Your task to perform on an android device: change your default location settings in chrome Image 0: 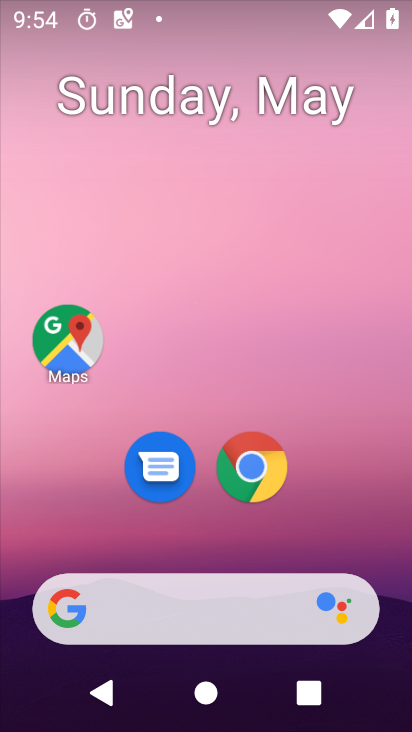
Step 0: click (239, 482)
Your task to perform on an android device: change your default location settings in chrome Image 1: 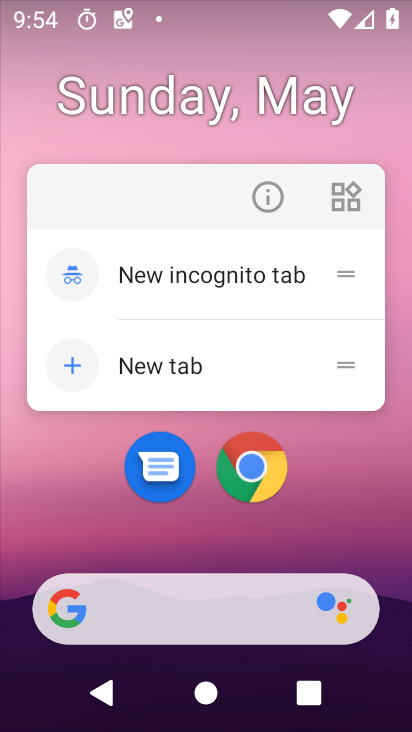
Step 1: click (232, 454)
Your task to perform on an android device: change your default location settings in chrome Image 2: 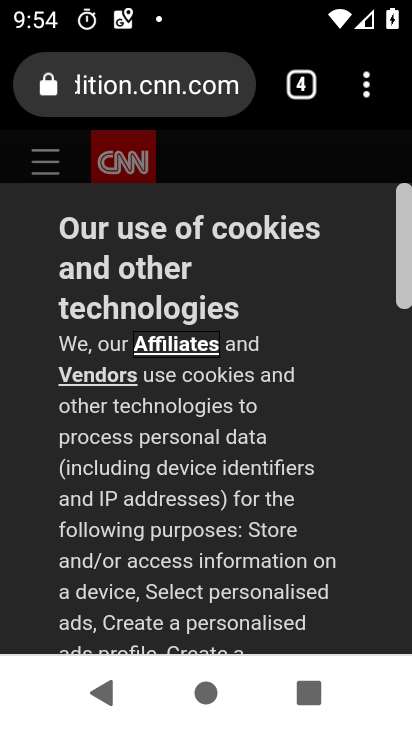
Step 2: drag from (368, 80) to (48, 527)
Your task to perform on an android device: change your default location settings in chrome Image 3: 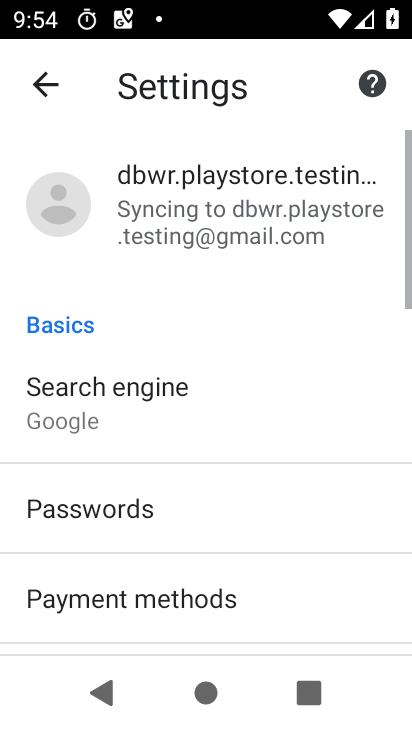
Step 3: drag from (191, 574) to (228, 311)
Your task to perform on an android device: change your default location settings in chrome Image 4: 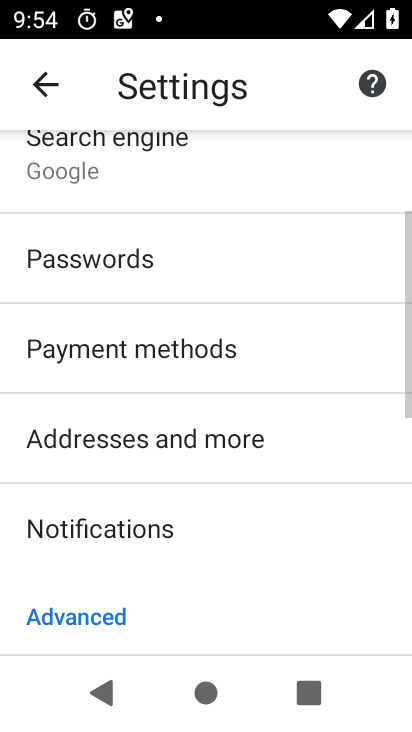
Step 4: drag from (200, 528) to (226, 191)
Your task to perform on an android device: change your default location settings in chrome Image 5: 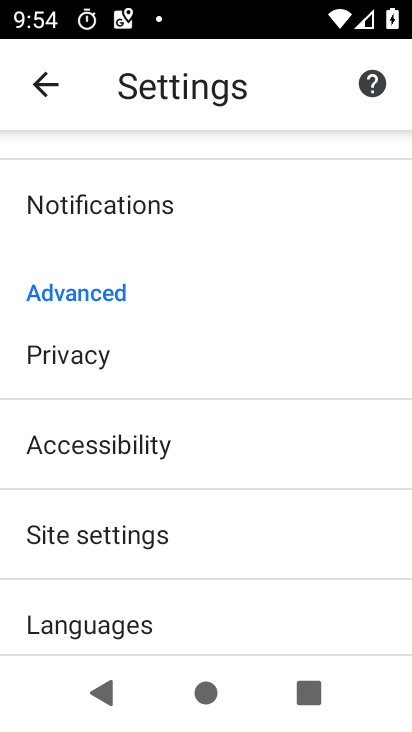
Step 5: click (162, 511)
Your task to perform on an android device: change your default location settings in chrome Image 6: 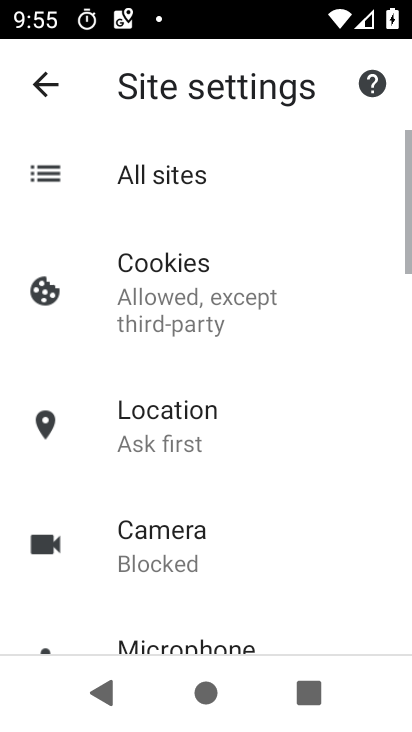
Step 6: drag from (189, 553) to (201, 453)
Your task to perform on an android device: change your default location settings in chrome Image 7: 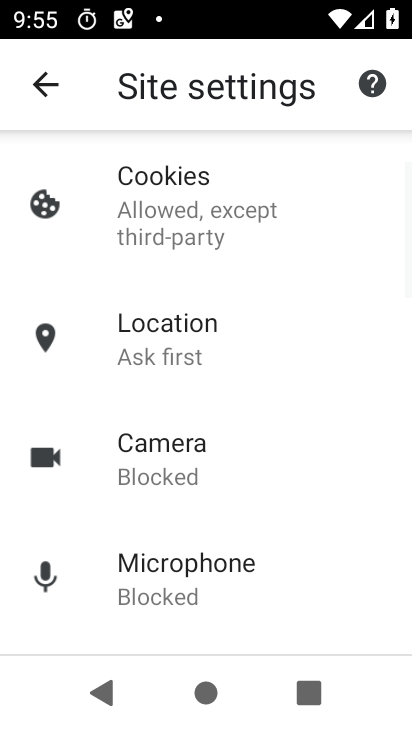
Step 7: click (181, 347)
Your task to perform on an android device: change your default location settings in chrome Image 8: 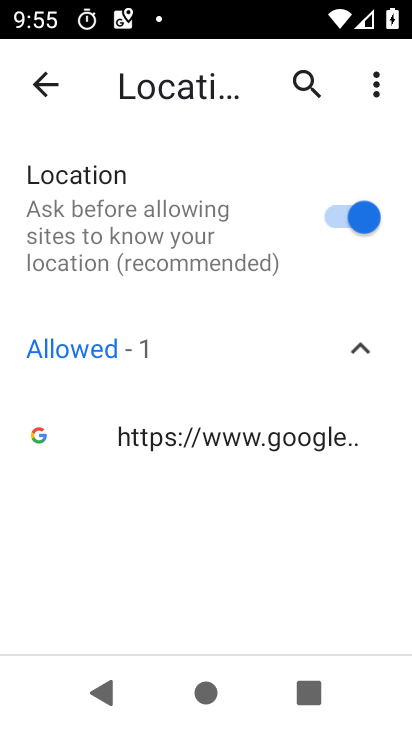
Step 8: click (331, 221)
Your task to perform on an android device: change your default location settings in chrome Image 9: 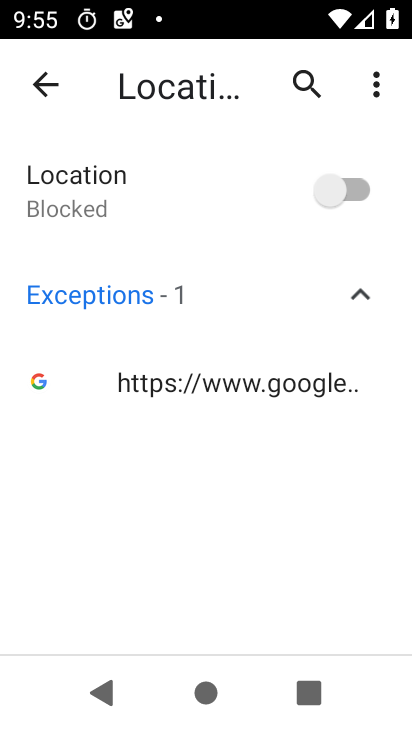
Step 9: task complete